Your task to perform on an android device: Go to Android settings Image 0: 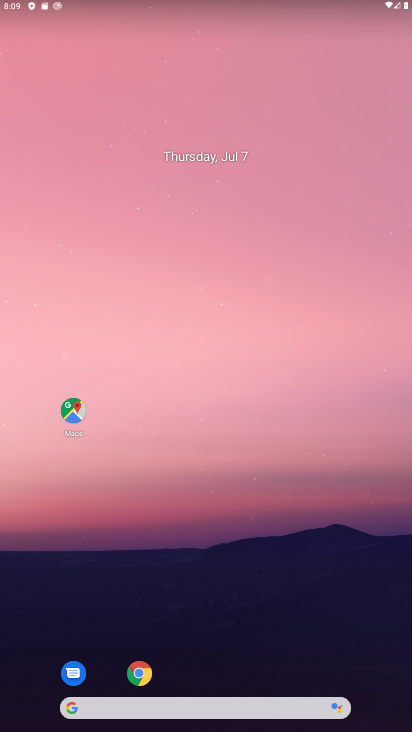
Step 0: drag from (224, 595) to (88, 446)
Your task to perform on an android device: Go to Android settings Image 1: 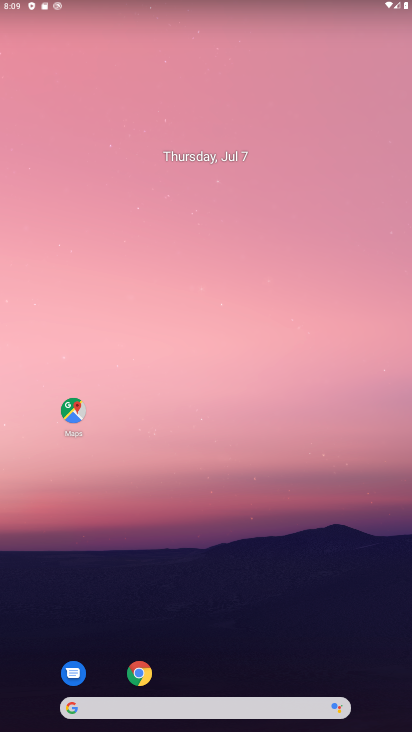
Step 1: drag from (179, 148) to (179, 89)
Your task to perform on an android device: Go to Android settings Image 2: 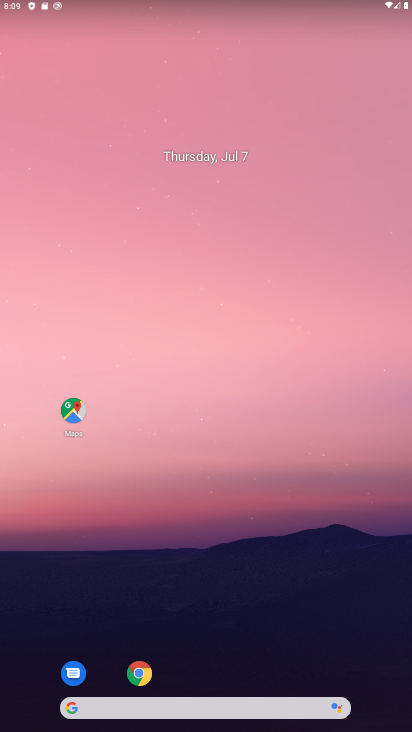
Step 2: click (179, 512)
Your task to perform on an android device: Go to Android settings Image 3: 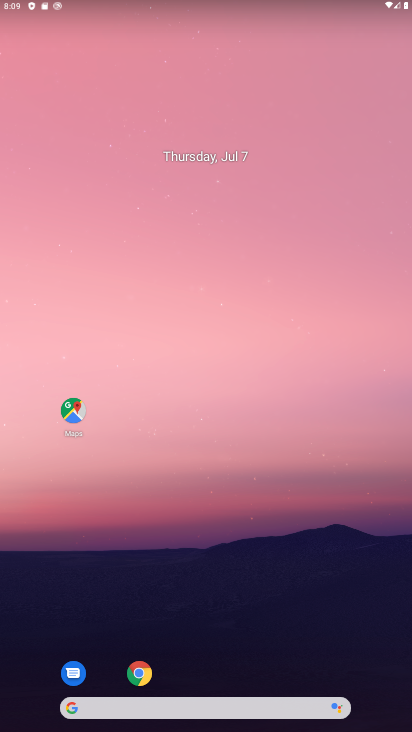
Step 3: drag from (201, 700) to (149, 65)
Your task to perform on an android device: Go to Android settings Image 4: 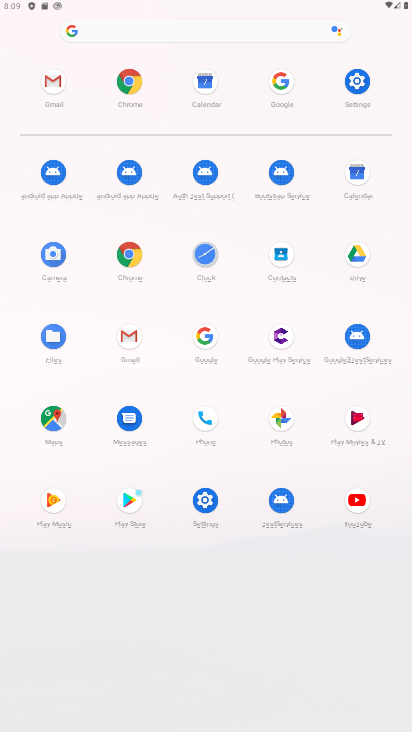
Step 4: click (196, 509)
Your task to perform on an android device: Go to Android settings Image 5: 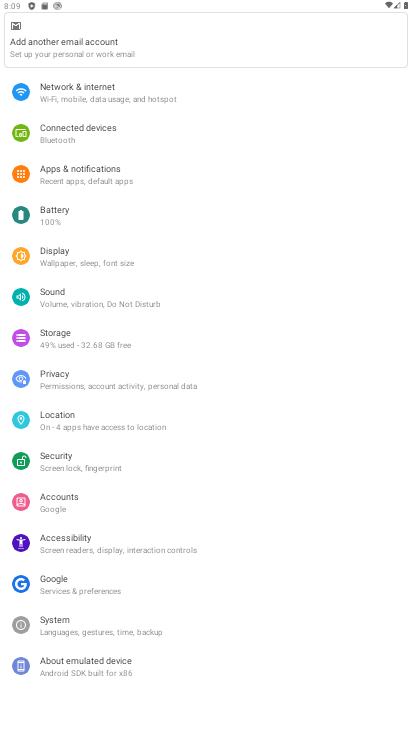
Step 5: drag from (195, 509) to (181, 105)
Your task to perform on an android device: Go to Android settings Image 6: 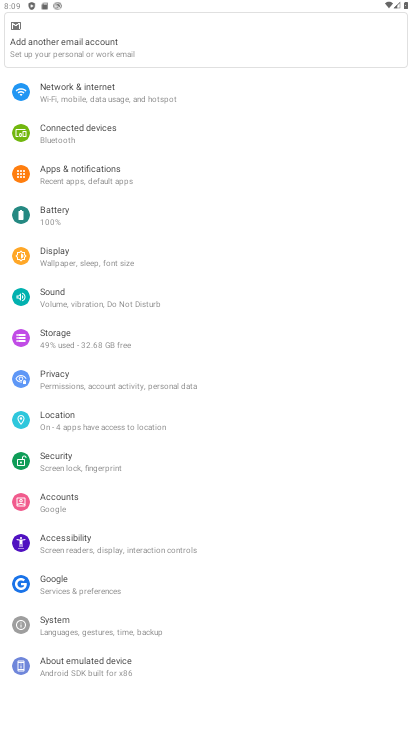
Step 6: click (67, 657)
Your task to perform on an android device: Go to Android settings Image 7: 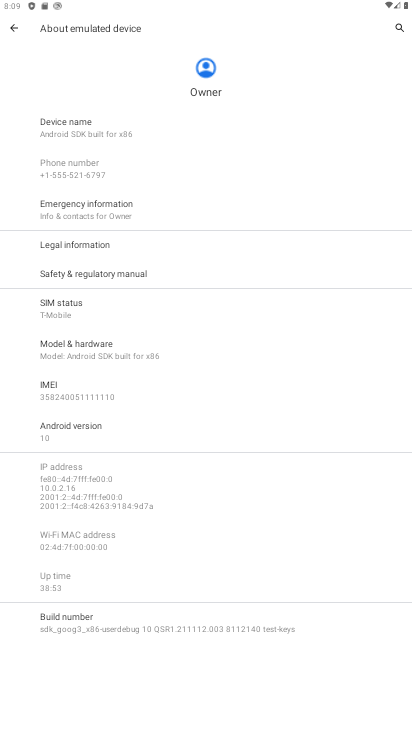
Step 7: task complete